Your task to perform on an android device: turn off airplane mode Image 0: 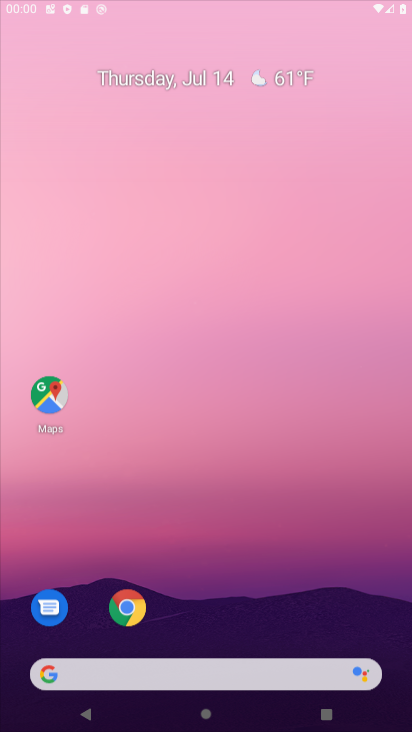
Step 0: click (126, 241)
Your task to perform on an android device: turn off airplane mode Image 1: 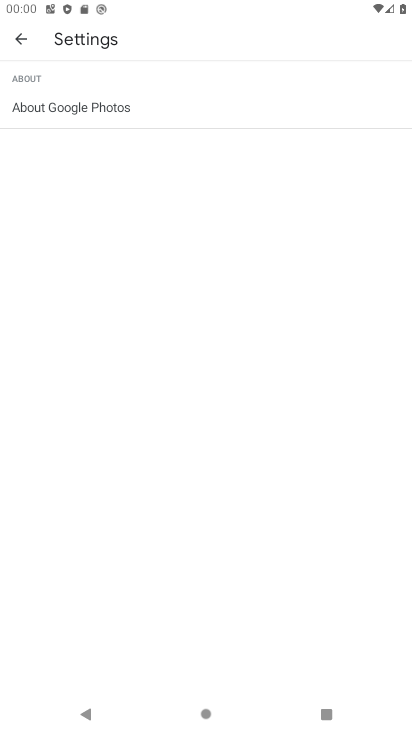
Step 1: drag from (218, 486) to (196, 268)
Your task to perform on an android device: turn off airplane mode Image 2: 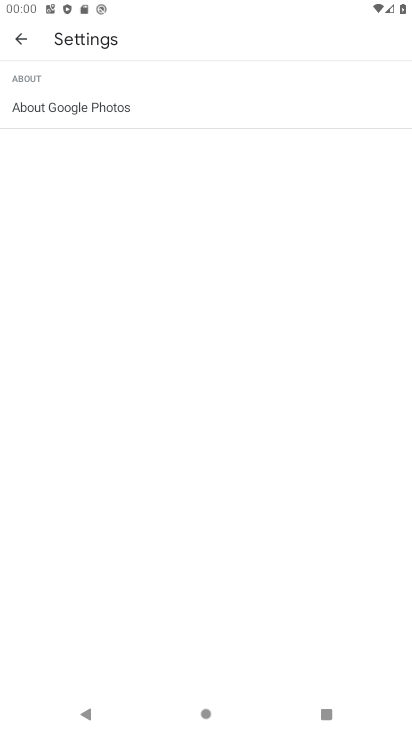
Step 2: press home button
Your task to perform on an android device: turn off airplane mode Image 3: 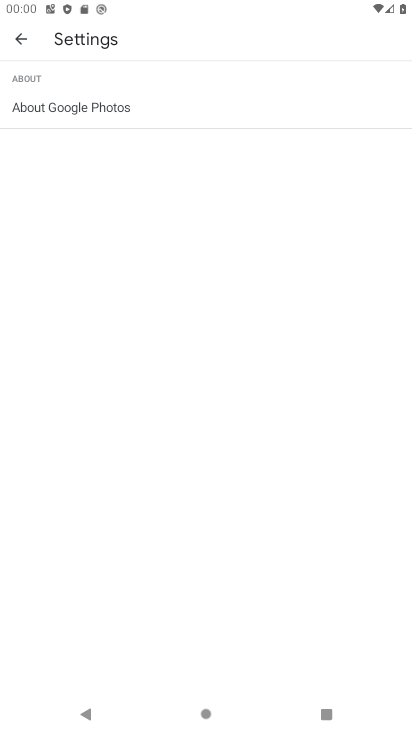
Step 3: press home button
Your task to perform on an android device: turn off airplane mode Image 4: 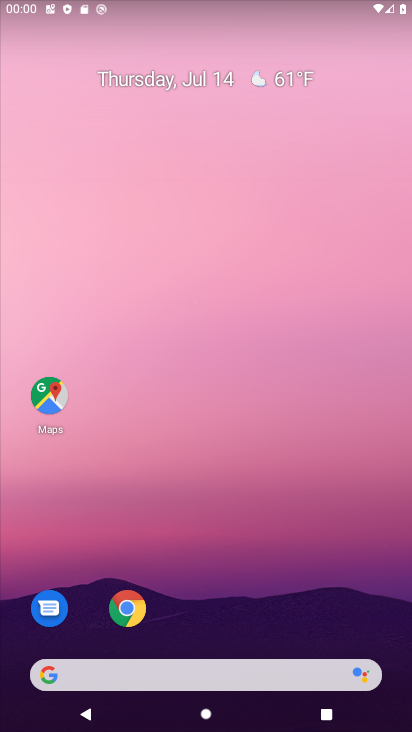
Step 4: drag from (182, 592) to (186, 172)
Your task to perform on an android device: turn off airplane mode Image 5: 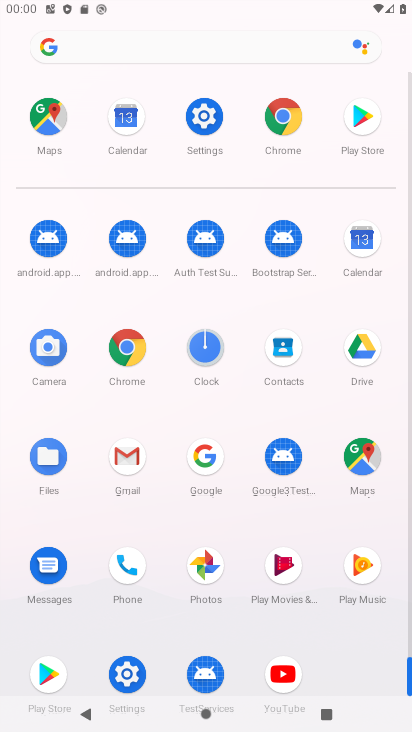
Step 5: click (199, 112)
Your task to perform on an android device: turn off airplane mode Image 6: 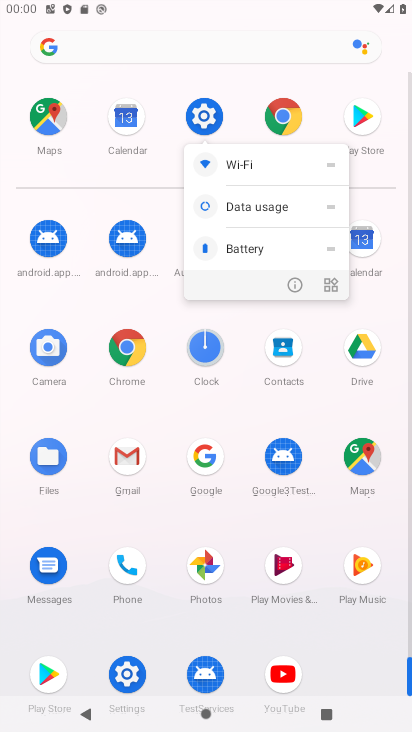
Step 6: click (303, 283)
Your task to perform on an android device: turn off airplane mode Image 7: 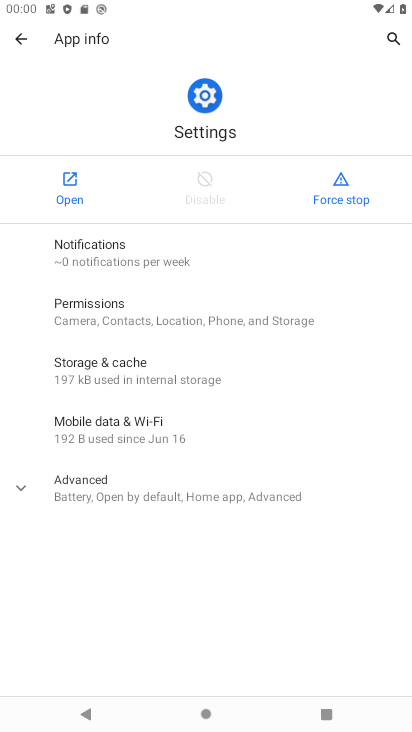
Step 7: click (70, 193)
Your task to perform on an android device: turn off airplane mode Image 8: 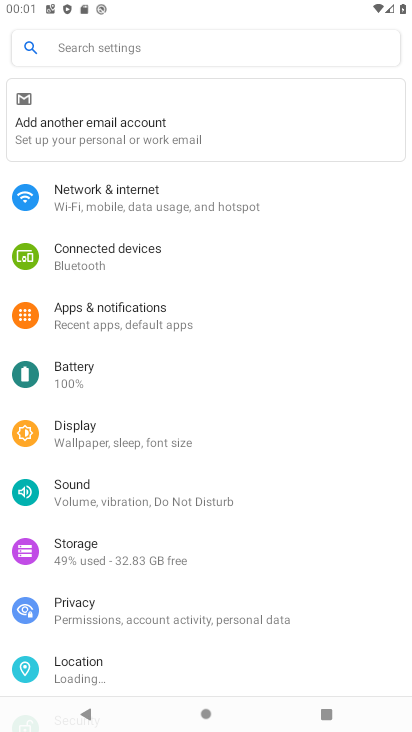
Step 8: click (108, 188)
Your task to perform on an android device: turn off airplane mode Image 9: 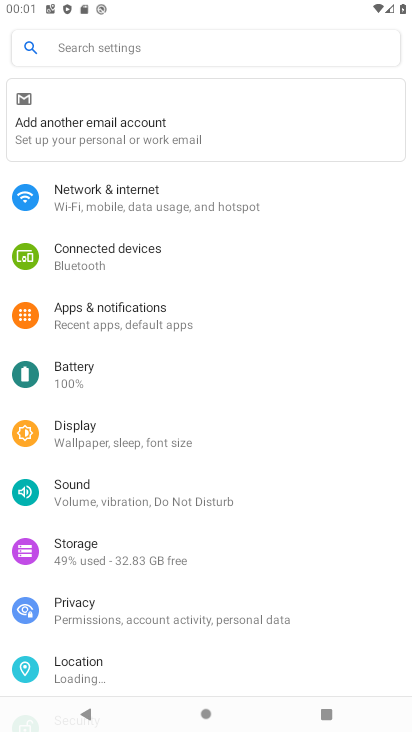
Step 9: click (108, 188)
Your task to perform on an android device: turn off airplane mode Image 10: 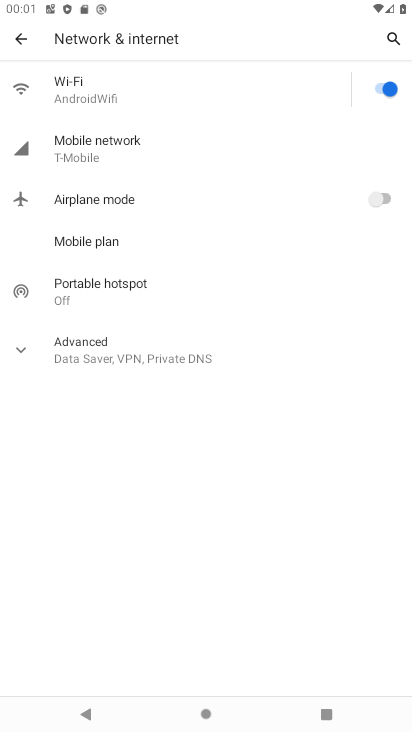
Step 10: drag from (207, 490) to (206, 243)
Your task to perform on an android device: turn off airplane mode Image 11: 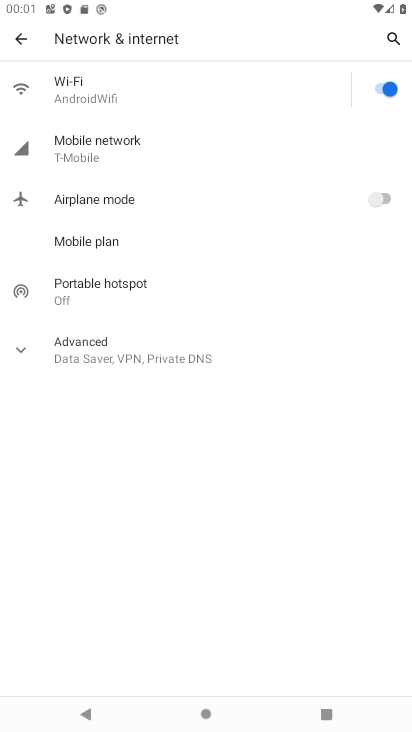
Step 11: drag from (186, 406) to (179, 307)
Your task to perform on an android device: turn off airplane mode Image 12: 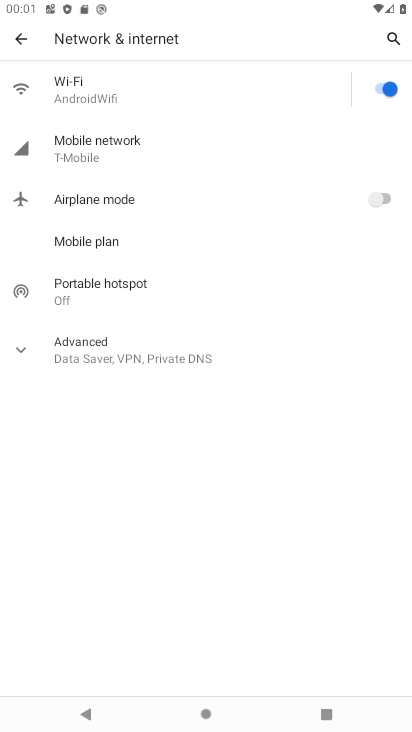
Step 12: drag from (179, 491) to (191, 317)
Your task to perform on an android device: turn off airplane mode Image 13: 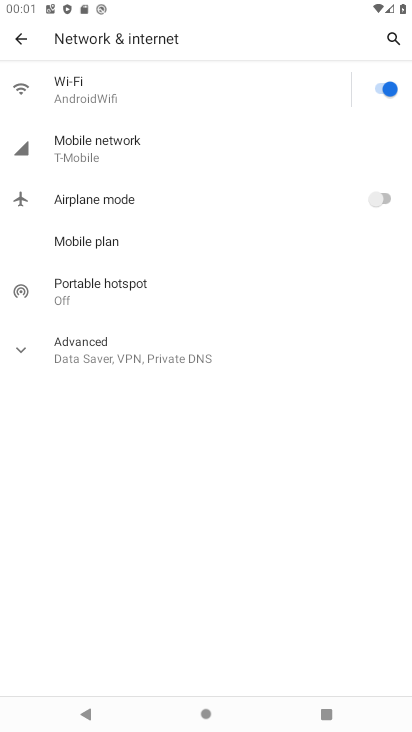
Step 13: drag from (215, 415) to (250, 213)
Your task to perform on an android device: turn off airplane mode Image 14: 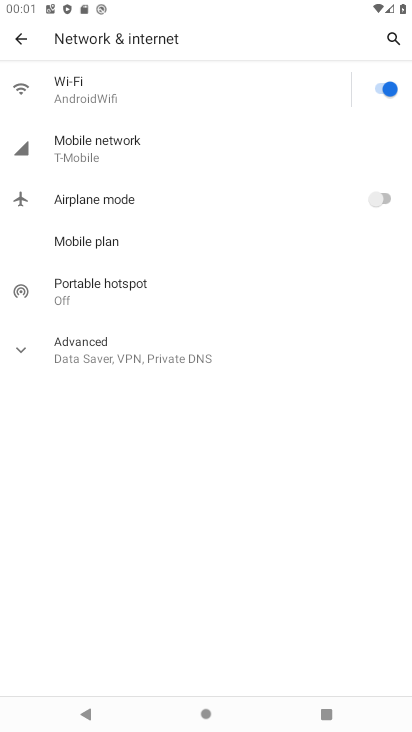
Step 14: click (103, 357)
Your task to perform on an android device: turn off airplane mode Image 15: 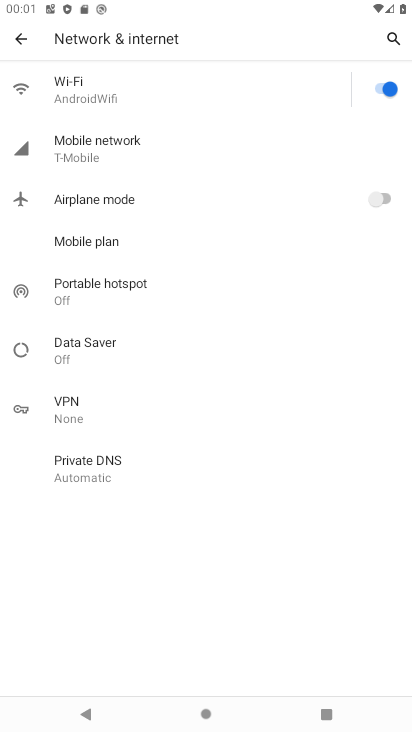
Step 15: task complete